Your task to perform on an android device: set the timer Image 0: 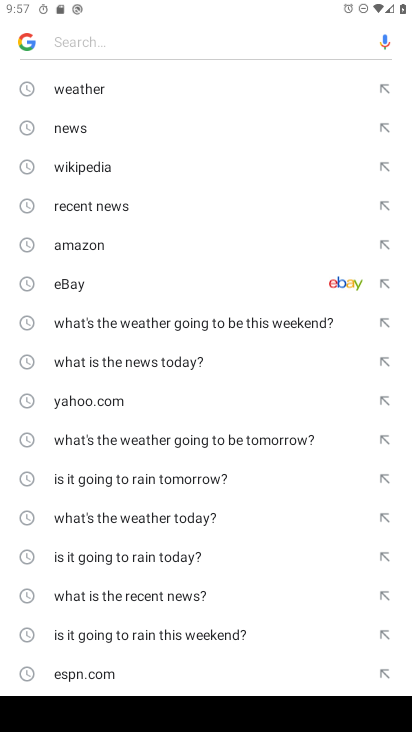
Step 0: press home button
Your task to perform on an android device: set the timer Image 1: 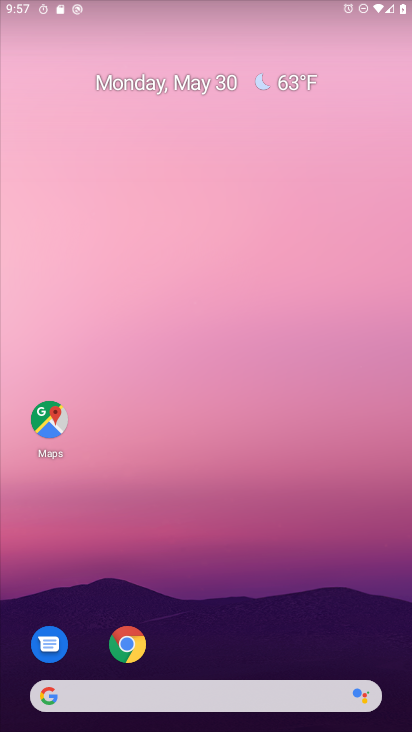
Step 1: drag from (220, 568) to (269, 57)
Your task to perform on an android device: set the timer Image 2: 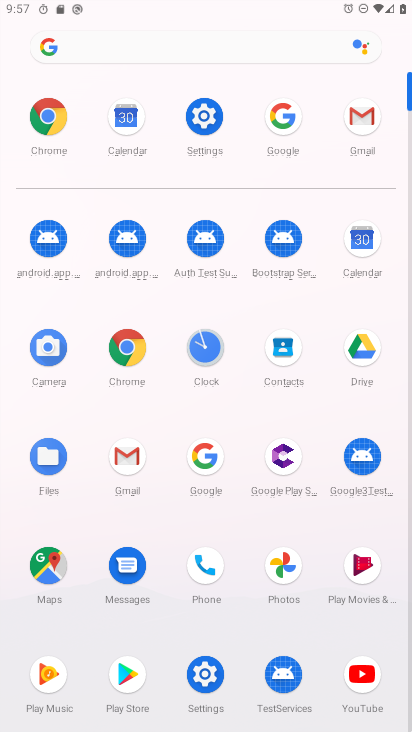
Step 2: click (208, 354)
Your task to perform on an android device: set the timer Image 3: 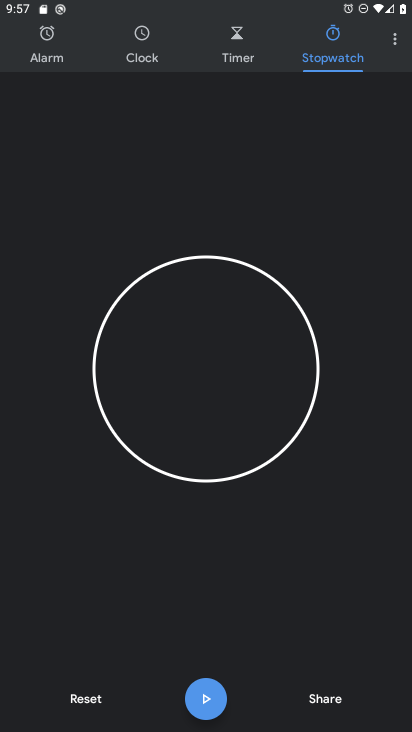
Step 3: click (243, 48)
Your task to perform on an android device: set the timer Image 4: 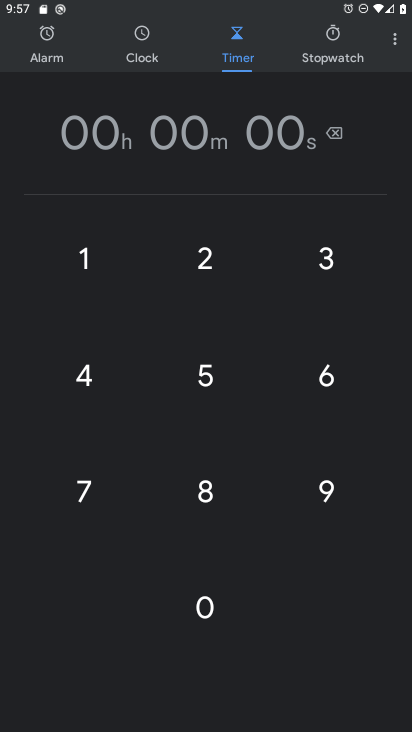
Step 4: click (209, 252)
Your task to perform on an android device: set the timer Image 5: 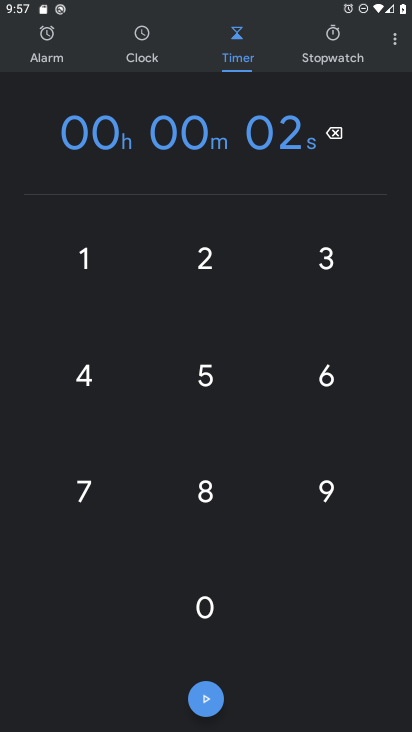
Step 5: click (209, 252)
Your task to perform on an android device: set the timer Image 6: 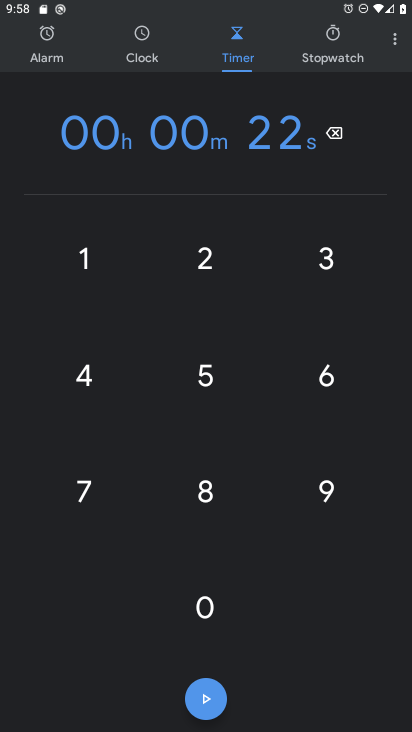
Step 6: task complete